Your task to perform on an android device: Go to accessibility settings Image 0: 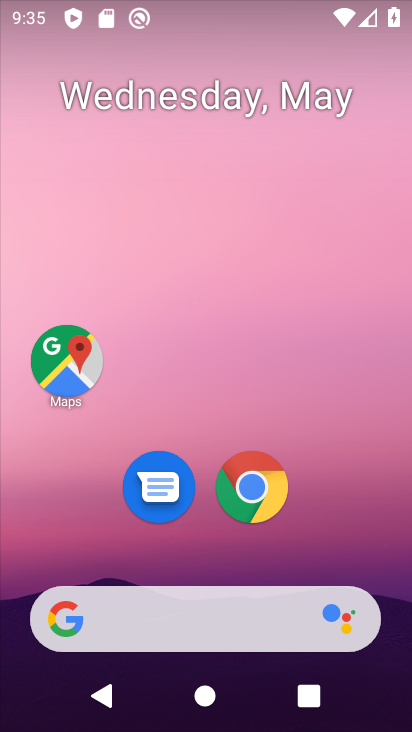
Step 0: drag from (250, 643) to (100, 10)
Your task to perform on an android device: Go to accessibility settings Image 1: 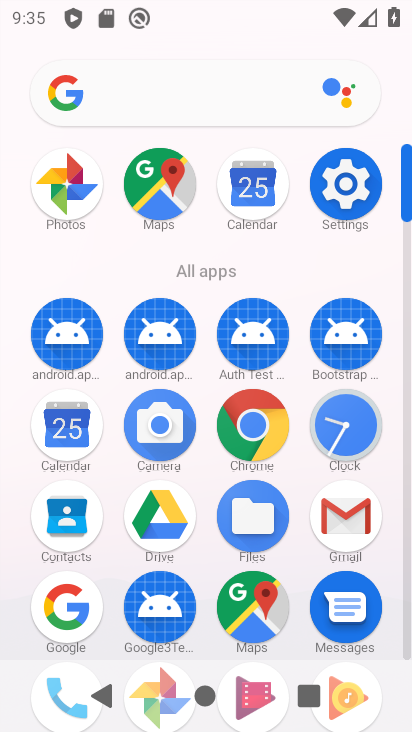
Step 1: click (341, 190)
Your task to perform on an android device: Go to accessibility settings Image 2: 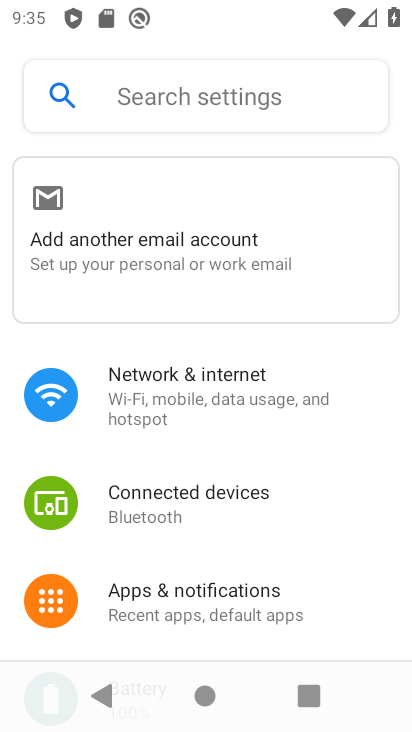
Step 2: click (139, 76)
Your task to perform on an android device: Go to accessibility settings Image 3: 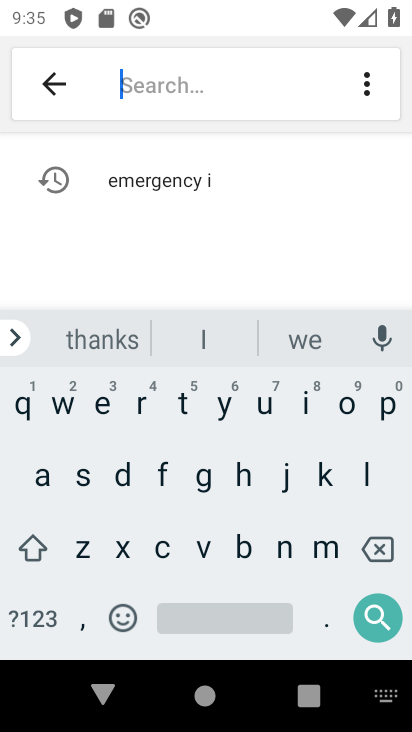
Step 3: click (39, 472)
Your task to perform on an android device: Go to accessibility settings Image 4: 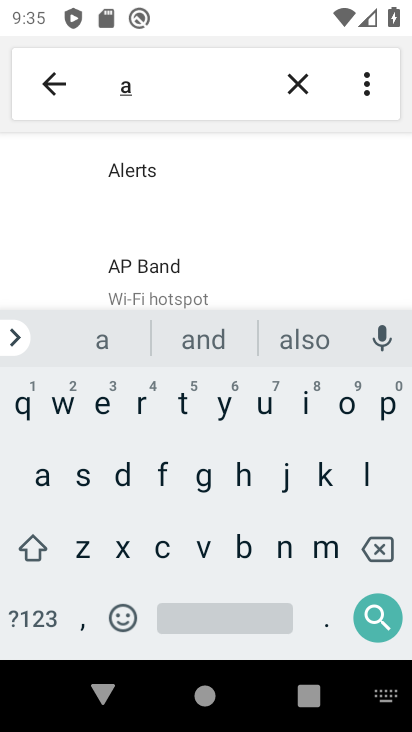
Step 4: click (158, 563)
Your task to perform on an android device: Go to accessibility settings Image 5: 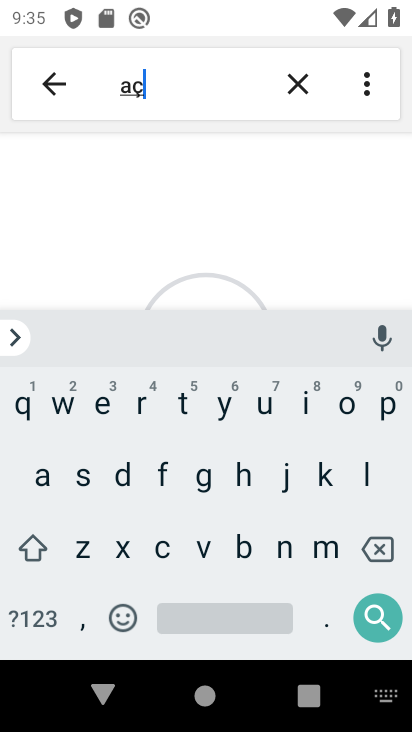
Step 5: click (379, 541)
Your task to perform on an android device: Go to accessibility settings Image 6: 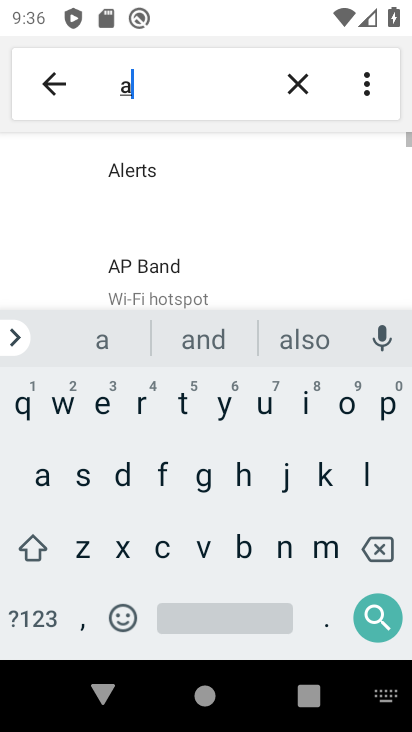
Step 6: click (154, 549)
Your task to perform on an android device: Go to accessibility settings Image 7: 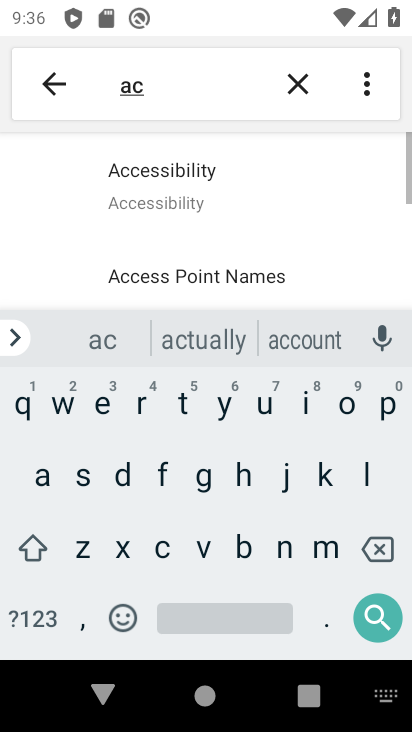
Step 7: click (160, 185)
Your task to perform on an android device: Go to accessibility settings Image 8: 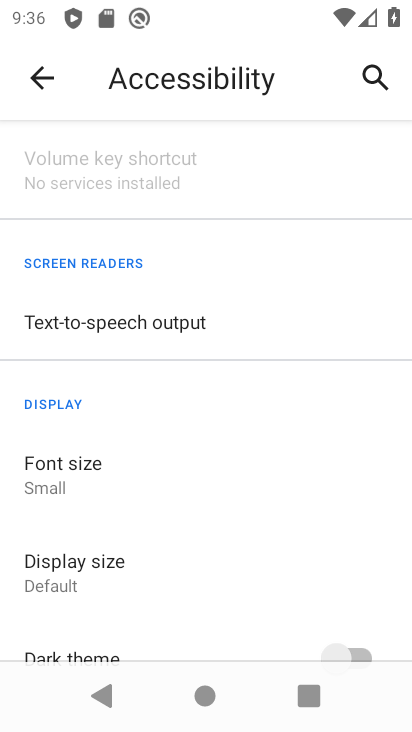
Step 8: task complete